Your task to perform on an android device: Open location settings Image 0: 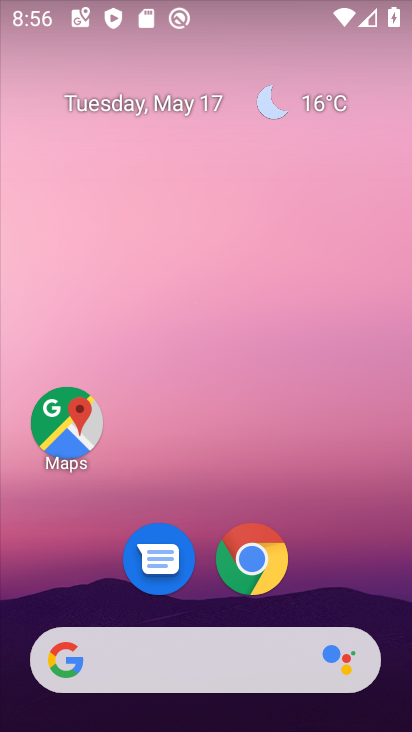
Step 0: click (405, 604)
Your task to perform on an android device: Open location settings Image 1: 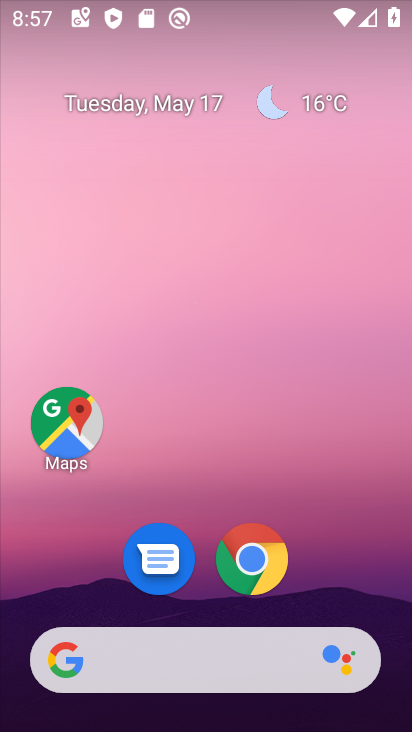
Step 1: drag from (242, 638) to (281, 416)
Your task to perform on an android device: Open location settings Image 2: 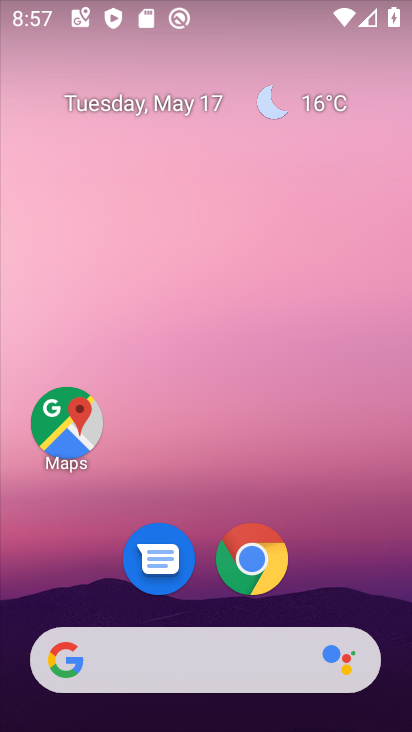
Step 2: drag from (211, 673) to (292, 266)
Your task to perform on an android device: Open location settings Image 3: 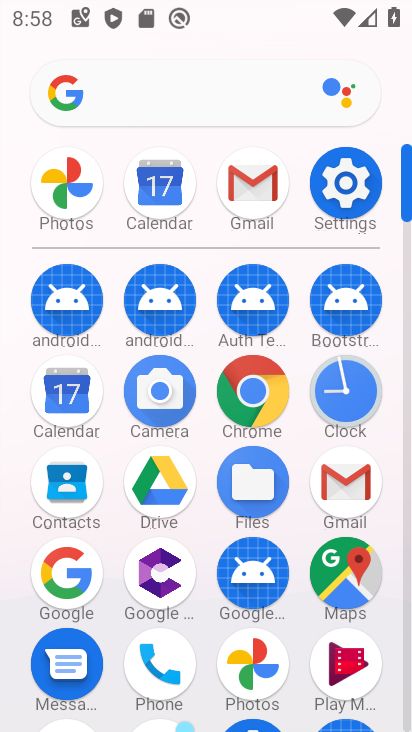
Step 3: click (363, 201)
Your task to perform on an android device: Open location settings Image 4: 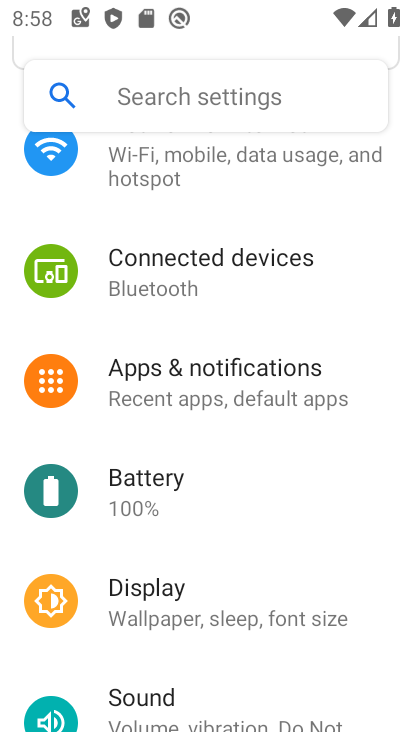
Step 4: drag from (101, 593) to (228, 116)
Your task to perform on an android device: Open location settings Image 5: 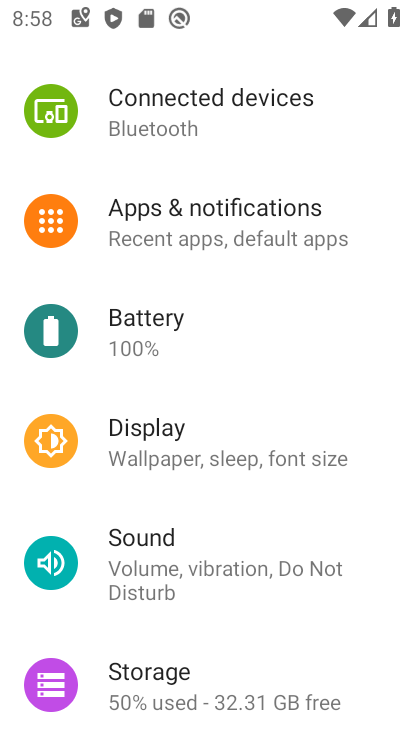
Step 5: drag from (187, 685) to (154, 230)
Your task to perform on an android device: Open location settings Image 6: 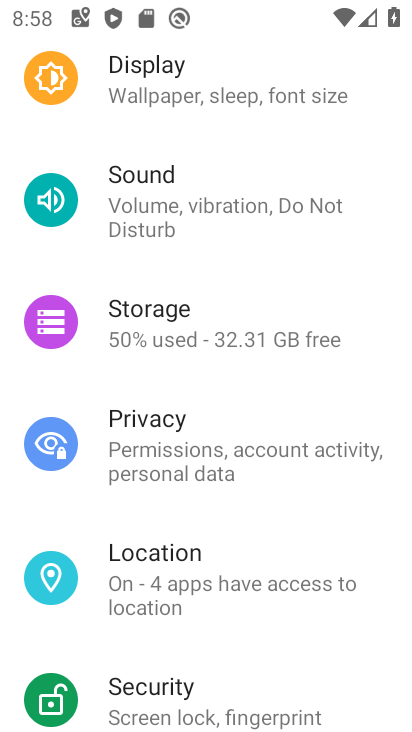
Step 6: click (159, 591)
Your task to perform on an android device: Open location settings Image 7: 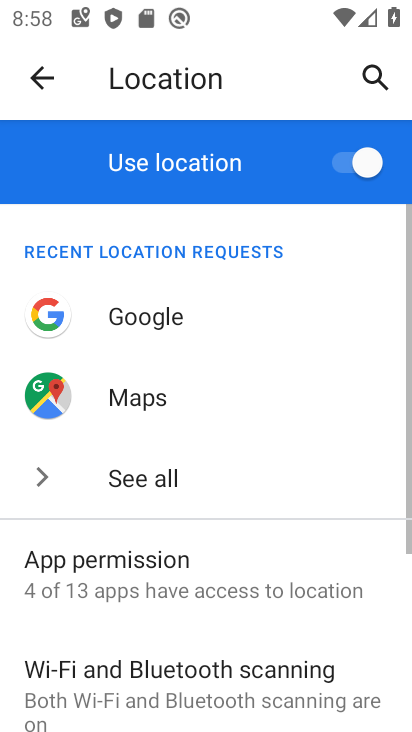
Step 7: task complete